Your task to perform on an android device: Open my contact list Image 0: 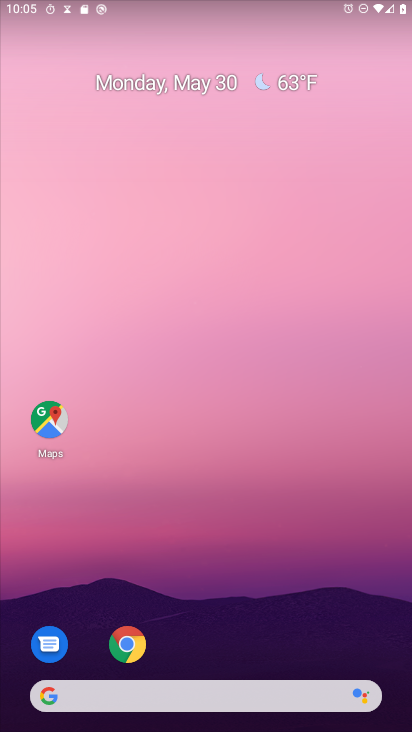
Step 0: drag from (213, 631) to (187, 61)
Your task to perform on an android device: Open my contact list Image 1: 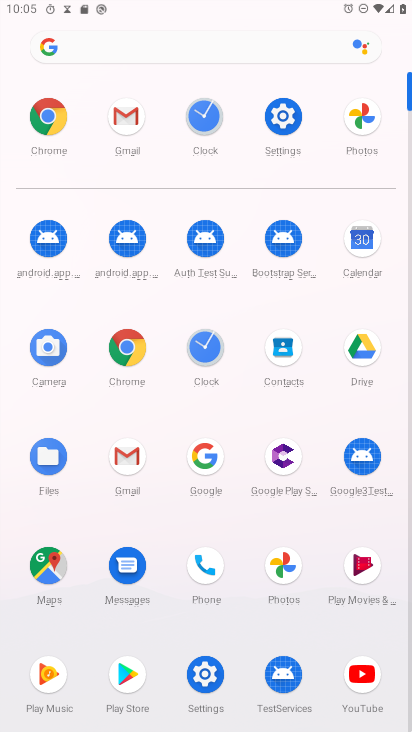
Step 1: click (281, 346)
Your task to perform on an android device: Open my contact list Image 2: 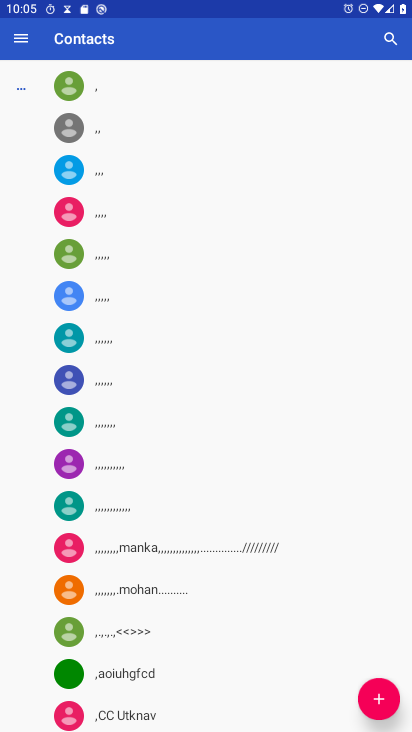
Step 2: task complete